Your task to perform on an android device: Go to Google maps Image 0: 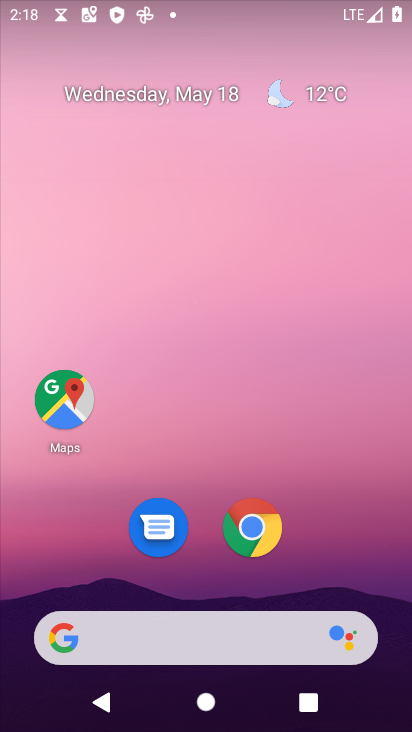
Step 0: click (73, 392)
Your task to perform on an android device: Go to Google maps Image 1: 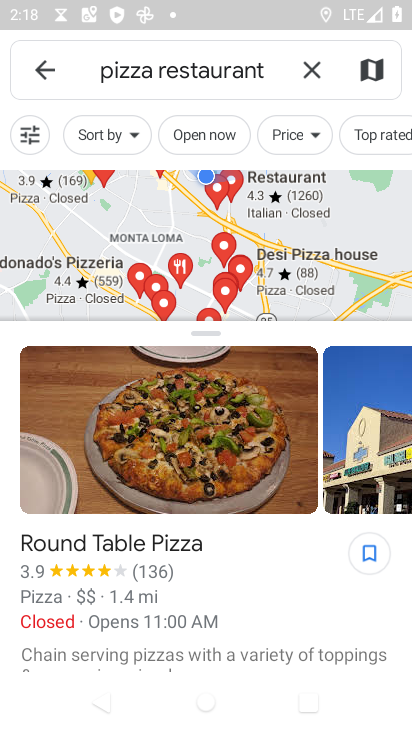
Step 1: task complete